Your task to perform on an android device: change timer sound Image 0: 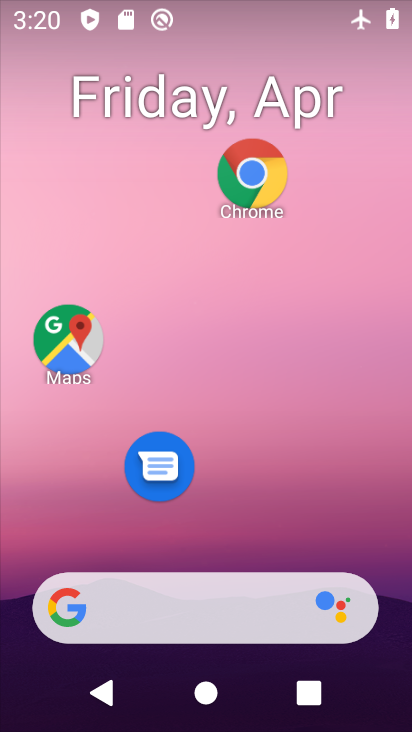
Step 0: drag from (279, 529) to (173, 134)
Your task to perform on an android device: change timer sound Image 1: 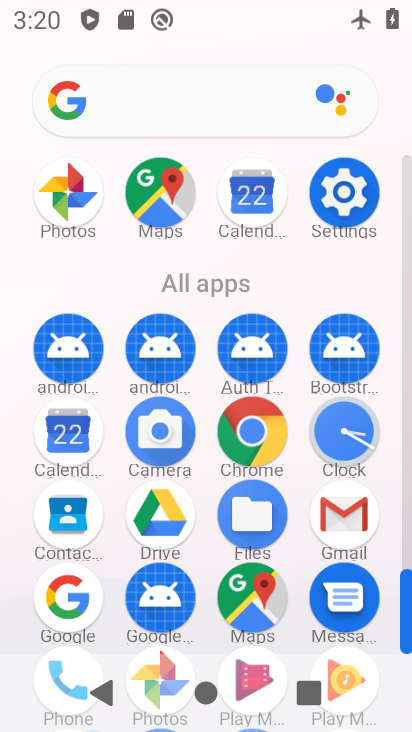
Step 1: click (334, 437)
Your task to perform on an android device: change timer sound Image 2: 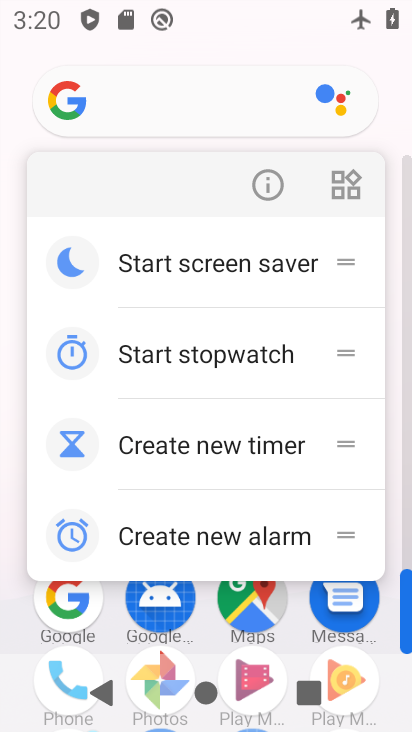
Step 2: click (269, 183)
Your task to perform on an android device: change timer sound Image 3: 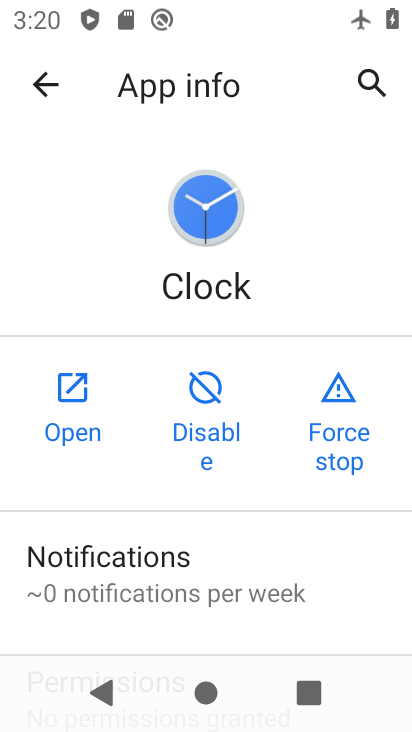
Step 3: click (52, 427)
Your task to perform on an android device: change timer sound Image 4: 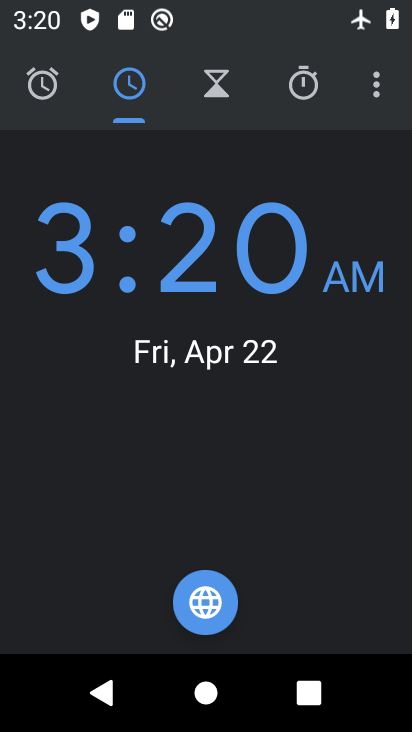
Step 4: click (375, 90)
Your task to perform on an android device: change timer sound Image 5: 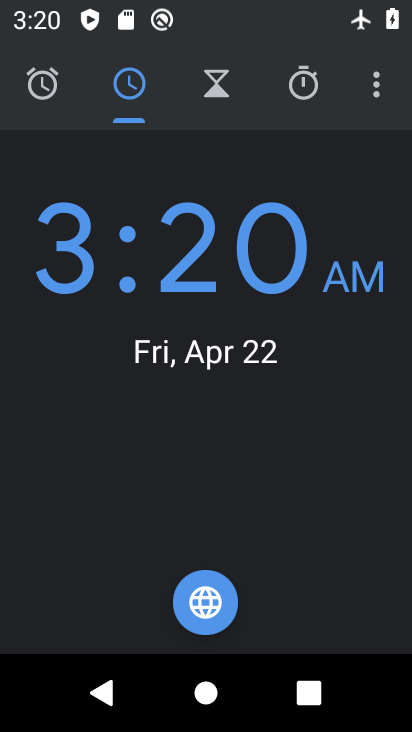
Step 5: click (384, 90)
Your task to perform on an android device: change timer sound Image 6: 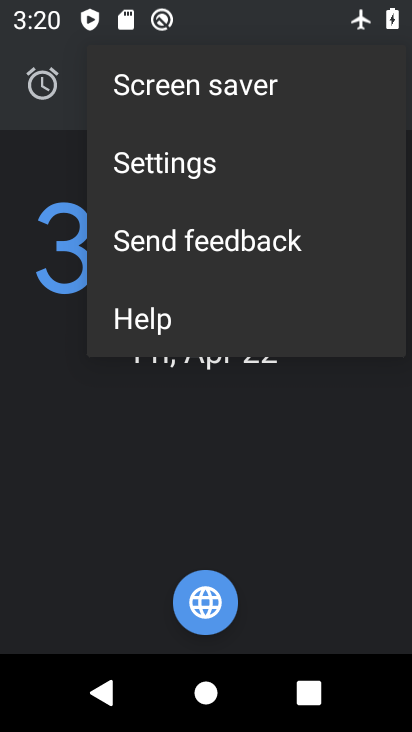
Step 6: click (273, 159)
Your task to perform on an android device: change timer sound Image 7: 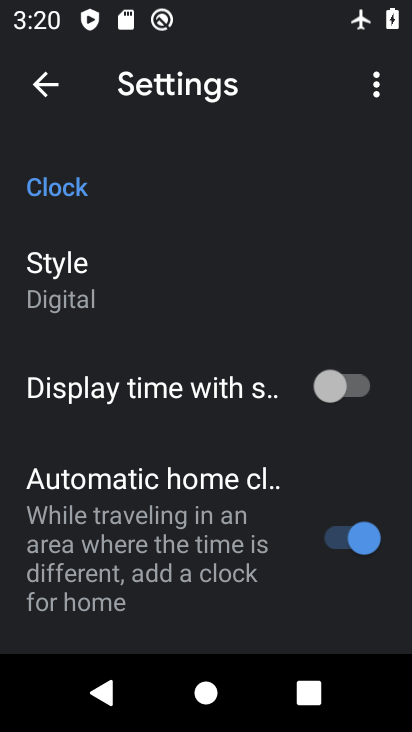
Step 7: drag from (171, 546) to (194, 218)
Your task to perform on an android device: change timer sound Image 8: 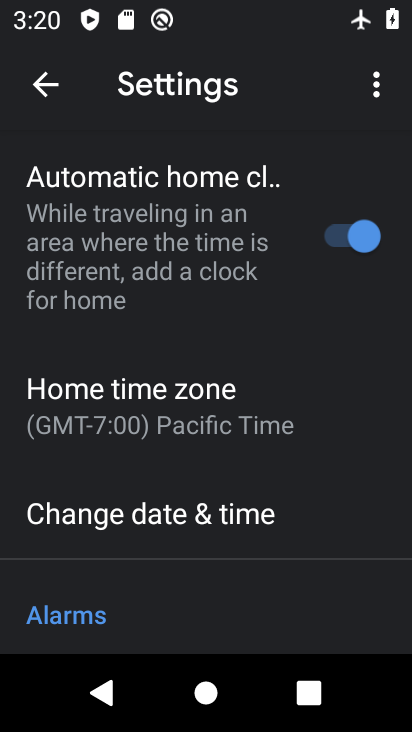
Step 8: drag from (211, 583) to (211, 175)
Your task to perform on an android device: change timer sound Image 9: 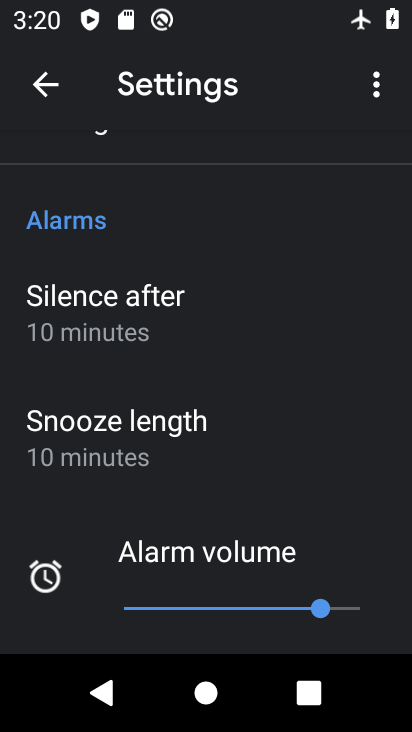
Step 9: drag from (268, 526) to (257, 195)
Your task to perform on an android device: change timer sound Image 10: 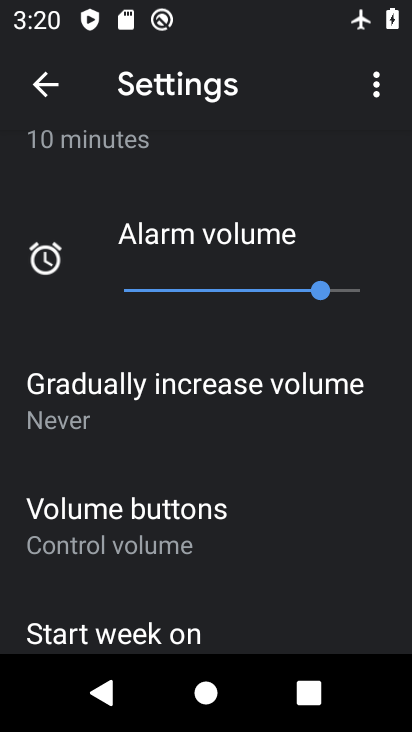
Step 10: drag from (213, 575) to (214, 217)
Your task to perform on an android device: change timer sound Image 11: 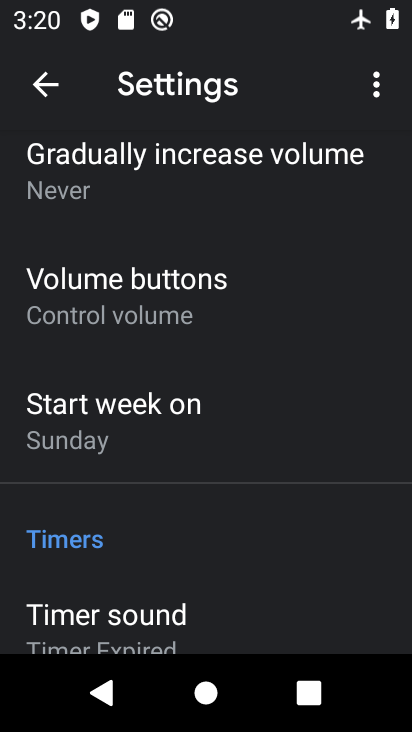
Step 11: drag from (212, 570) to (208, 292)
Your task to perform on an android device: change timer sound Image 12: 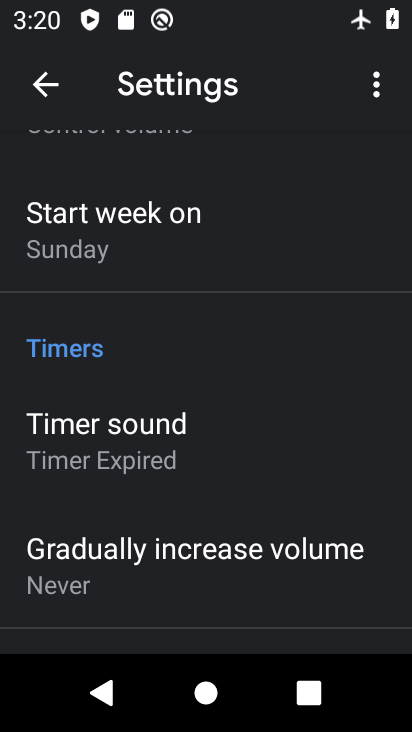
Step 12: click (191, 434)
Your task to perform on an android device: change timer sound Image 13: 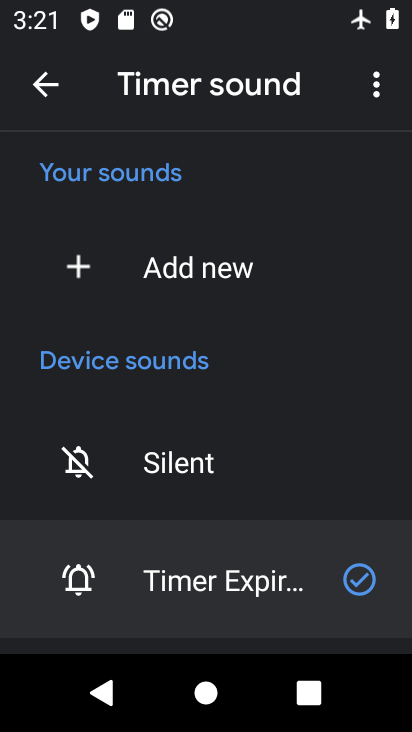
Step 13: drag from (279, 458) to (308, 255)
Your task to perform on an android device: change timer sound Image 14: 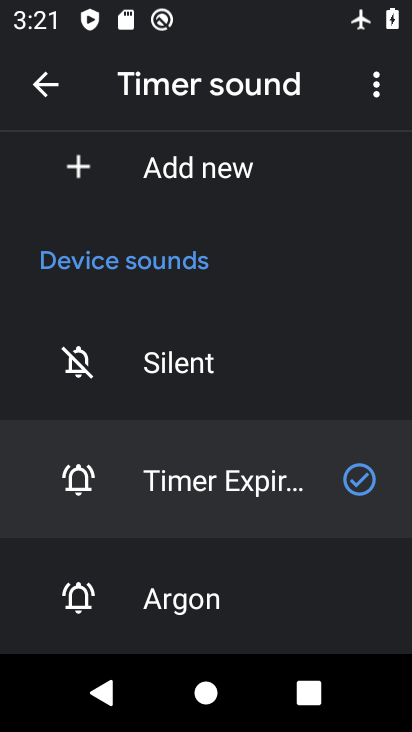
Step 14: click (225, 611)
Your task to perform on an android device: change timer sound Image 15: 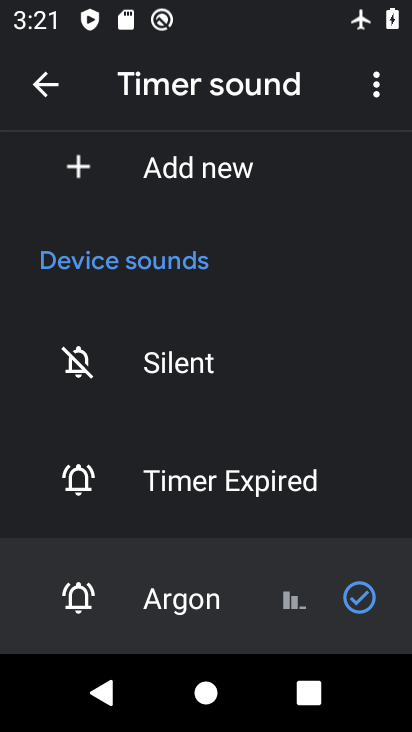
Step 15: task complete